Your task to perform on an android device: turn on wifi Image 0: 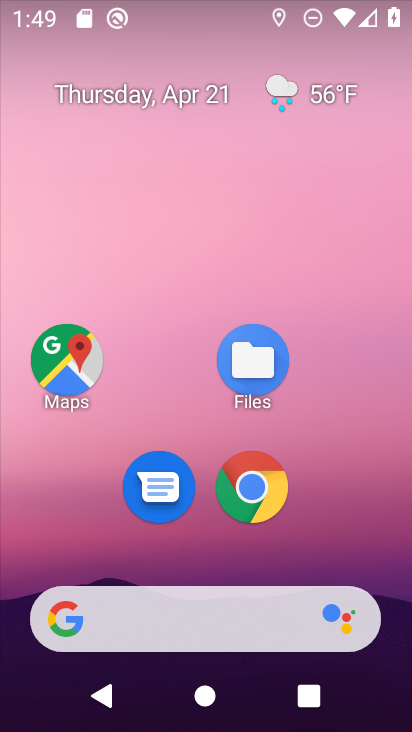
Step 0: drag from (373, 524) to (390, 31)
Your task to perform on an android device: turn on wifi Image 1: 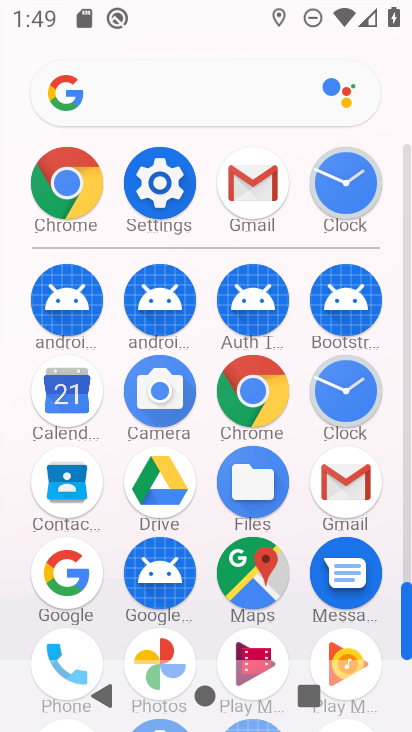
Step 1: click (141, 190)
Your task to perform on an android device: turn on wifi Image 2: 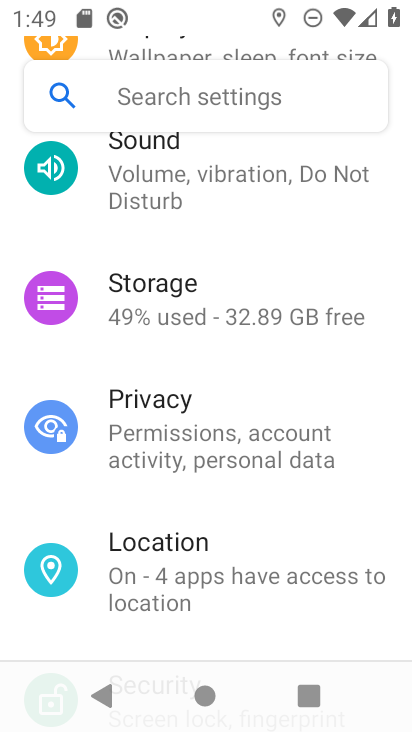
Step 2: drag from (271, 222) to (277, 535)
Your task to perform on an android device: turn on wifi Image 3: 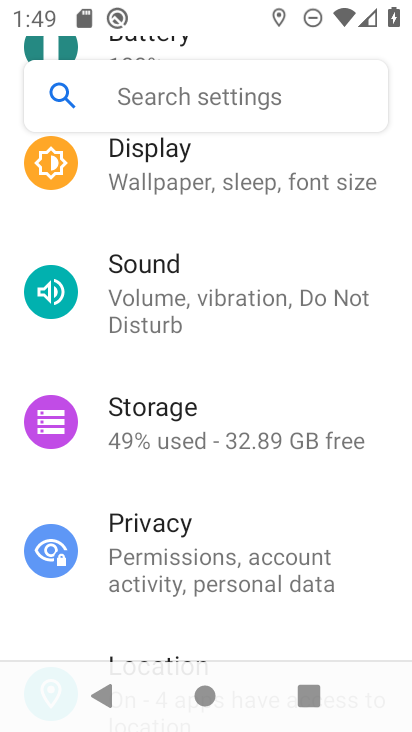
Step 3: drag from (258, 148) to (314, 538)
Your task to perform on an android device: turn on wifi Image 4: 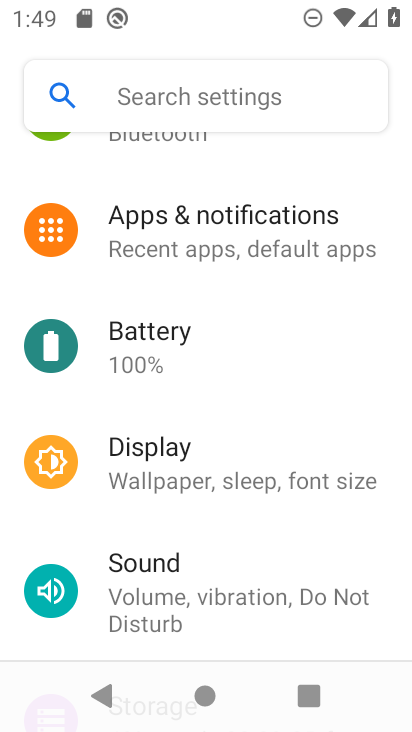
Step 4: drag from (198, 197) to (265, 564)
Your task to perform on an android device: turn on wifi Image 5: 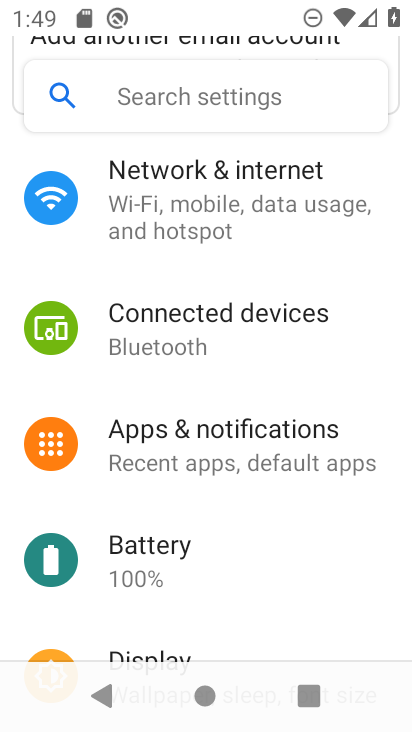
Step 5: click (222, 219)
Your task to perform on an android device: turn on wifi Image 6: 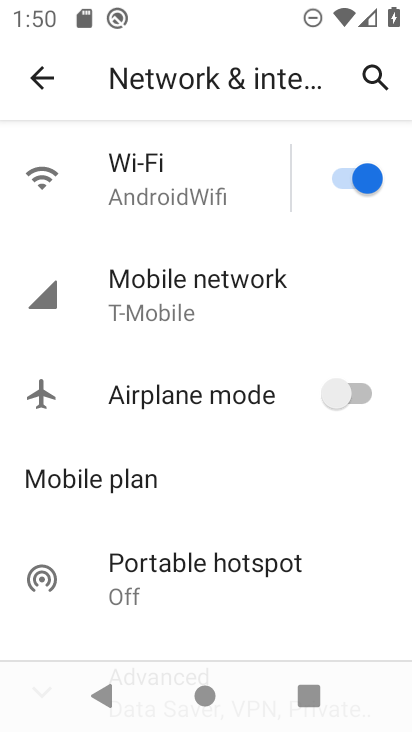
Step 6: task complete